Your task to perform on an android device: toggle location history Image 0: 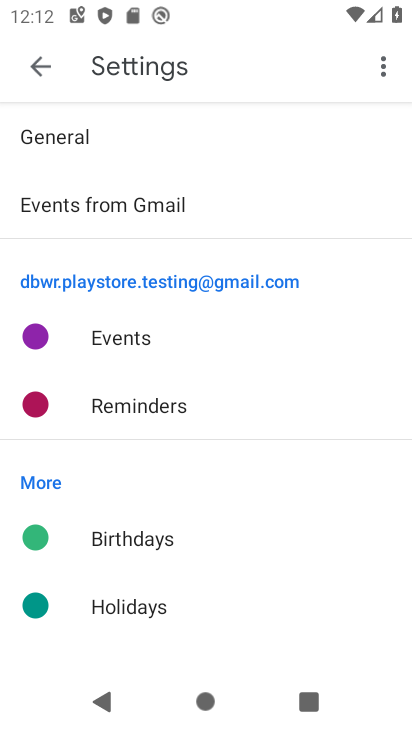
Step 0: press home button
Your task to perform on an android device: toggle location history Image 1: 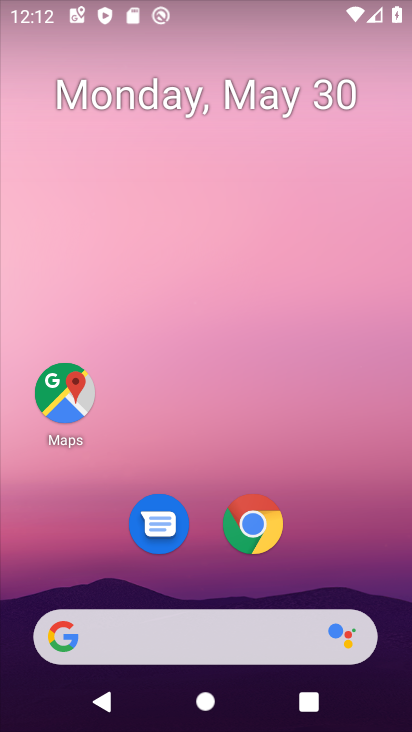
Step 1: drag from (207, 437) to (224, 1)
Your task to perform on an android device: toggle location history Image 2: 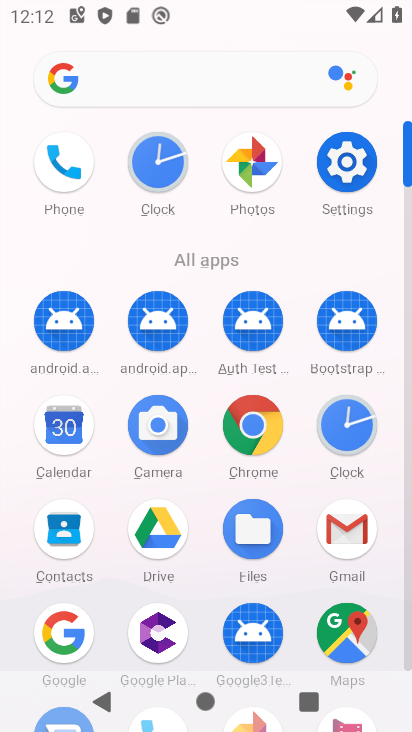
Step 2: click (347, 172)
Your task to perform on an android device: toggle location history Image 3: 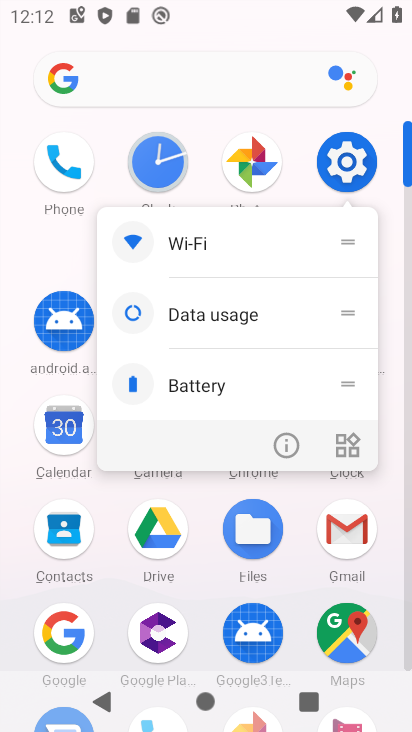
Step 3: click (347, 170)
Your task to perform on an android device: toggle location history Image 4: 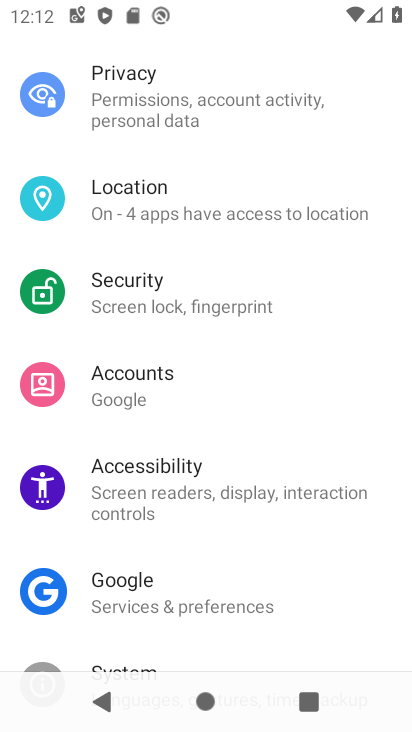
Step 4: click (245, 200)
Your task to perform on an android device: toggle location history Image 5: 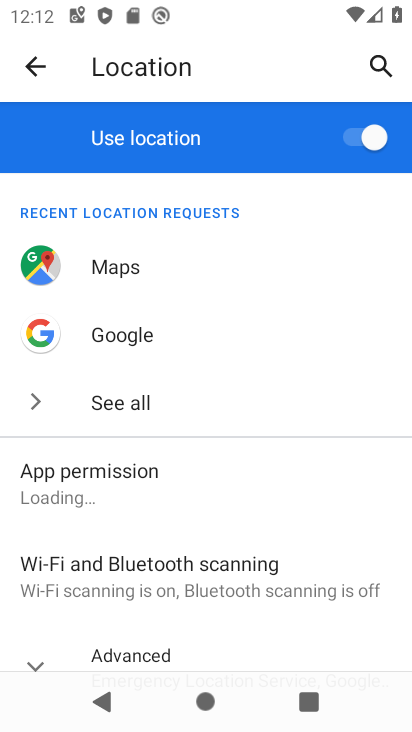
Step 5: drag from (125, 532) to (176, 136)
Your task to perform on an android device: toggle location history Image 6: 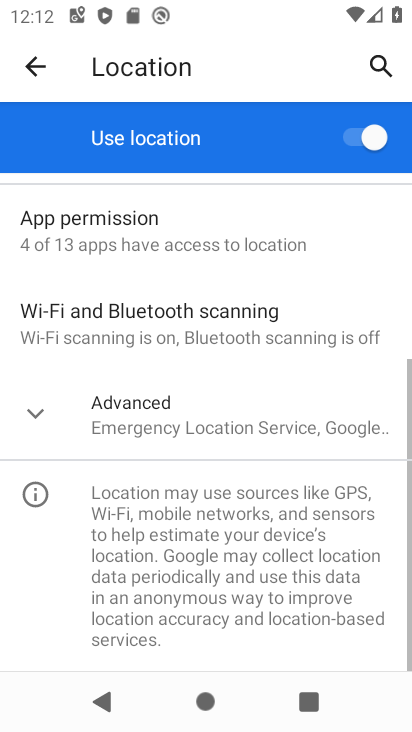
Step 6: click (32, 415)
Your task to perform on an android device: toggle location history Image 7: 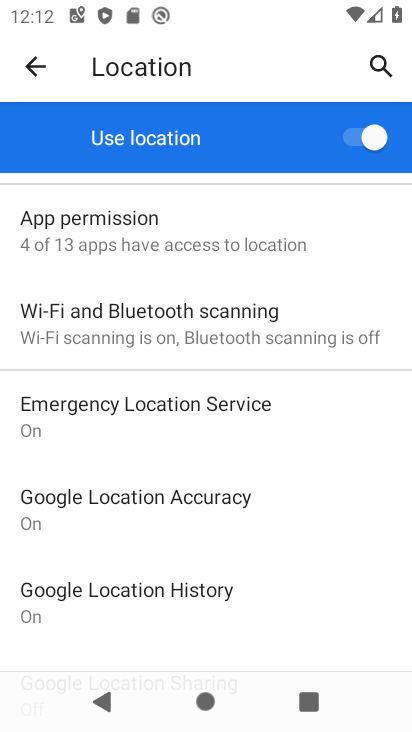
Step 7: click (175, 598)
Your task to perform on an android device: toggle location history Image 8: 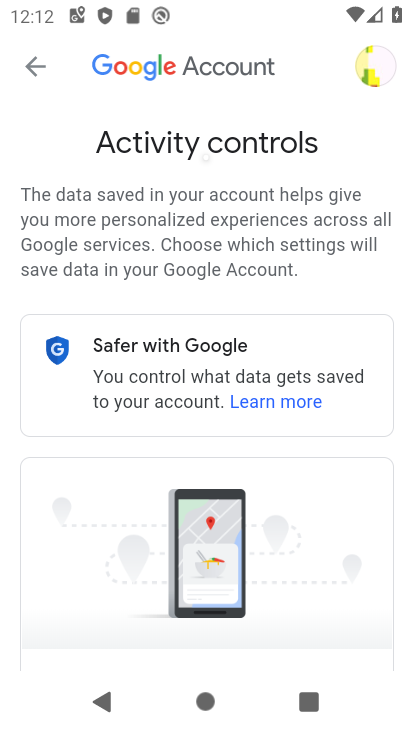
Step 8: drag from (272, 518) to (281, 115)
Your task to perform on an android device: toggle location history Image 9: 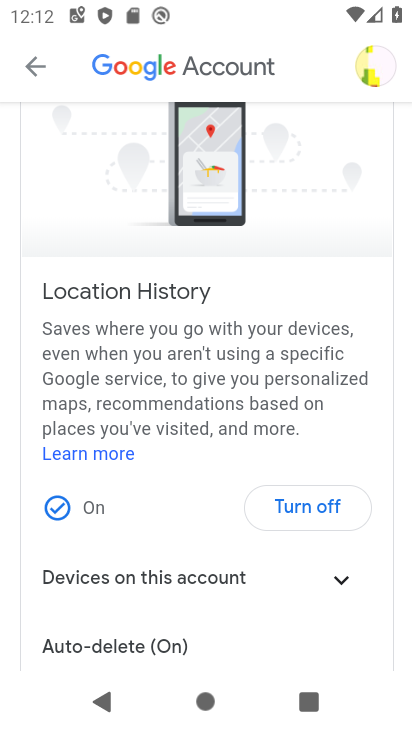
Step 9: click (310, 503)
Your task to perform on an android device: toggle location history Image 10: 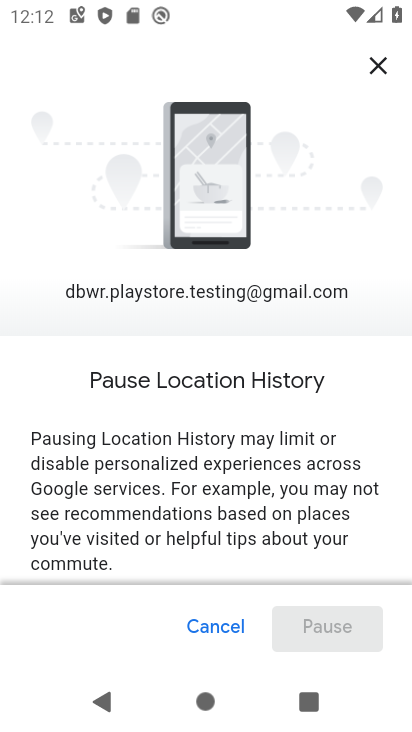
Step 10: drag from (231, 503) to (261, 35)
Your task to perform on an android device: toggle location history Image 11: 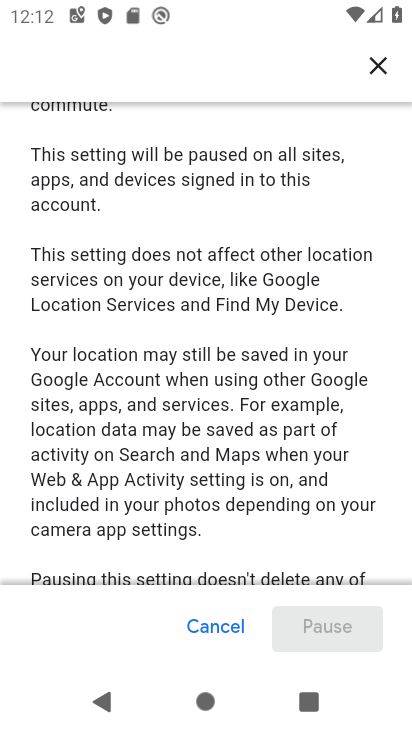
Step 11: drag from (241, 485) to (256, 7)
Your task to perform on an android device: toggle location history Image 12: 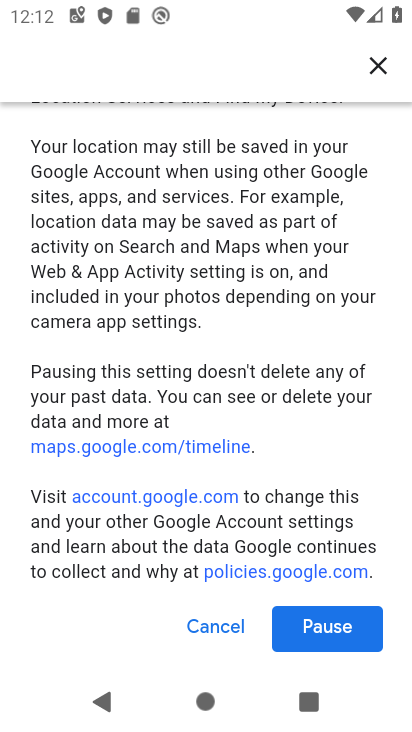
Step 12: click (332, 625)
Your task to perform on an android device: toggle location history Image 13: 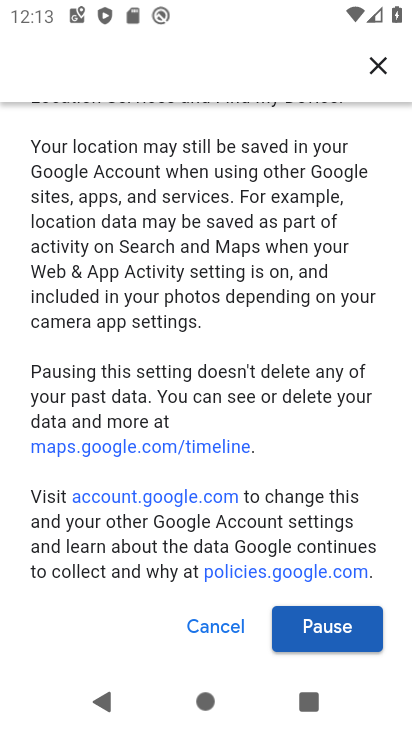
Step 13: click (332, 625)
Your task to perform on an android device: toggle location history Image 14: 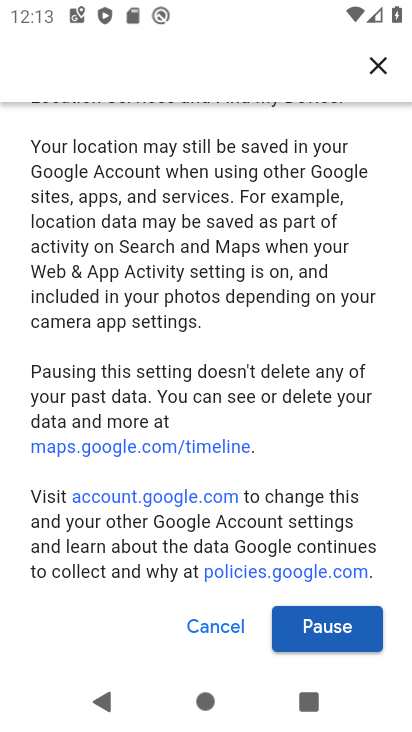
Step 14: click (332, 622)
Your task to perform on an android device: toggle location history Image 15: 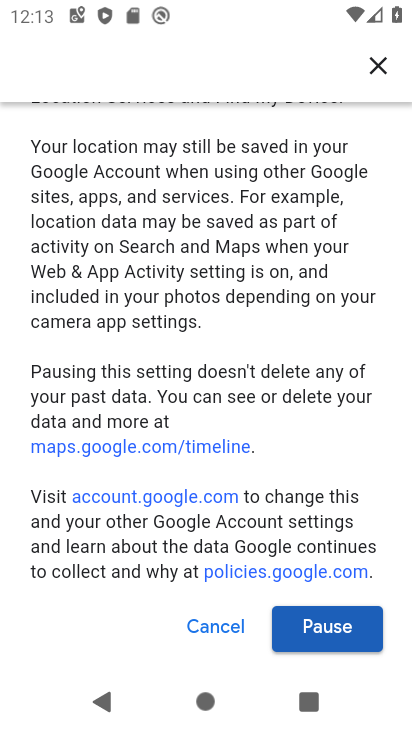
Step 15: click (332, 623)
Your task to perform on an android device: toggle location history Image 16: 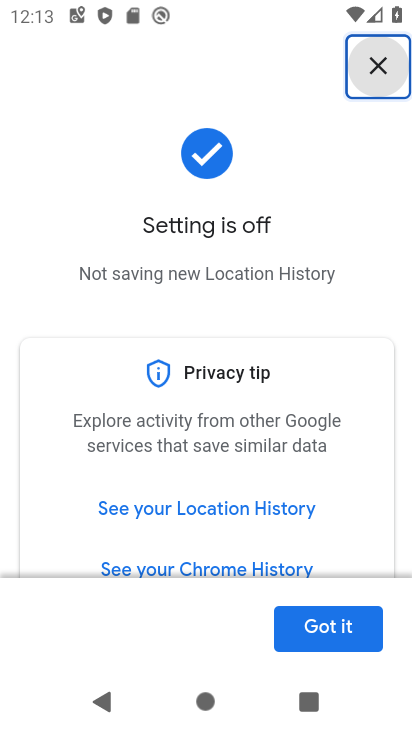
Step 16: click (332, 625)
Your task to perform on an android device: toggle location history Image 17: 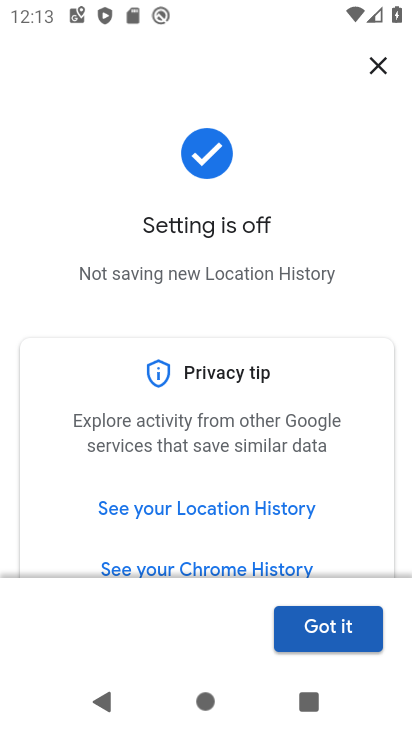
Step 17: click (332, 626)
Your task to perform on an android device: toggle location history Image 18: 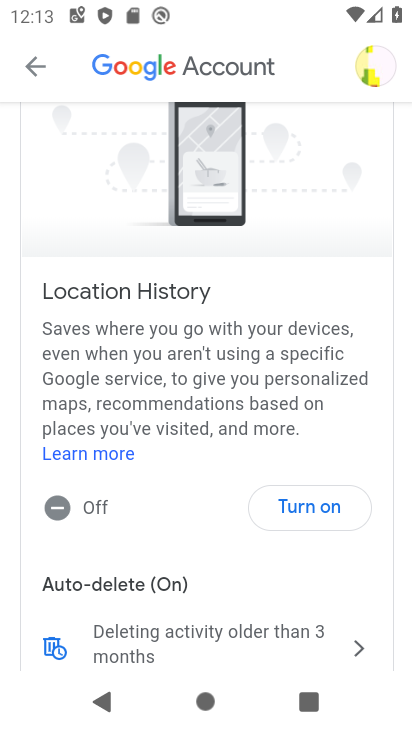
Step 18: task complete